Your task to perform on an android device: change the clock display to digital Image 0: 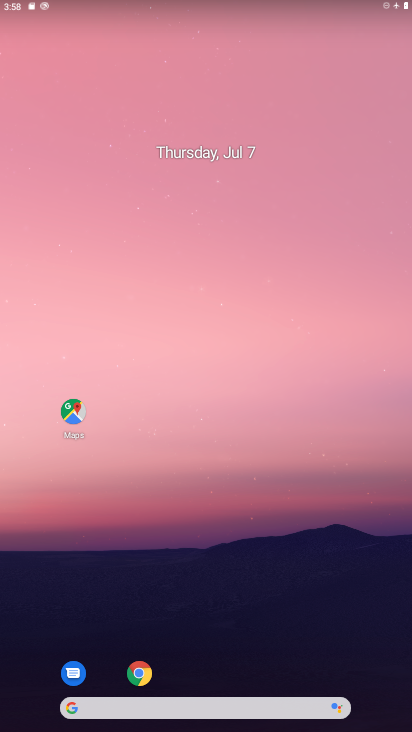
Step 0: drag from (207, 88) to (208, 0)
Your task to perform on an android device: change the clock display to digital Image 1: 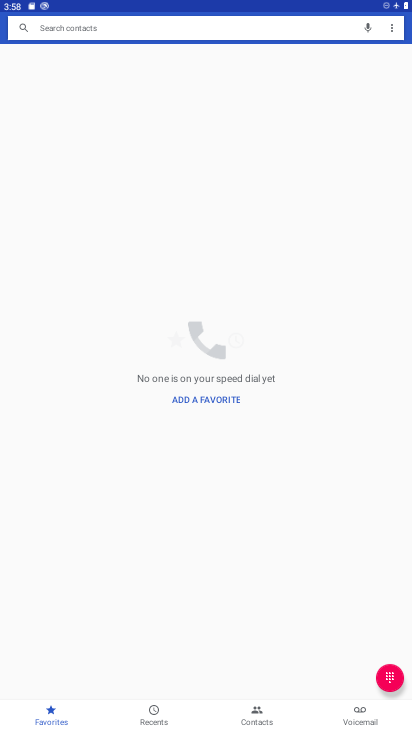
Step 1: press home button
Your task to perform on an android device: change the clock display to digital Image 2: 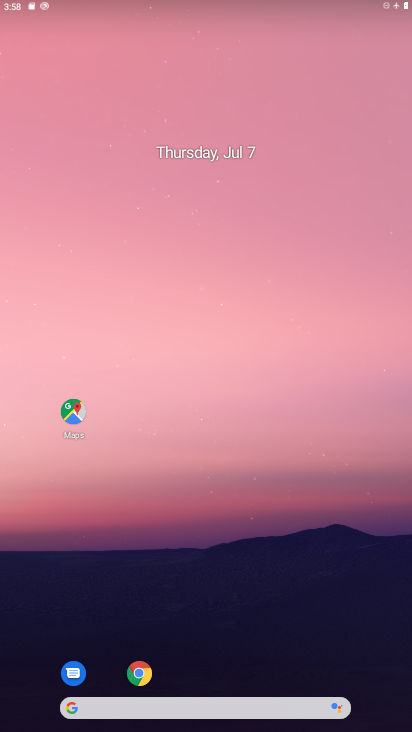
Step 2: drag from (243, 660) to (247, 13)
Your task to perform on an android device: change the clock display to digital Image 3: 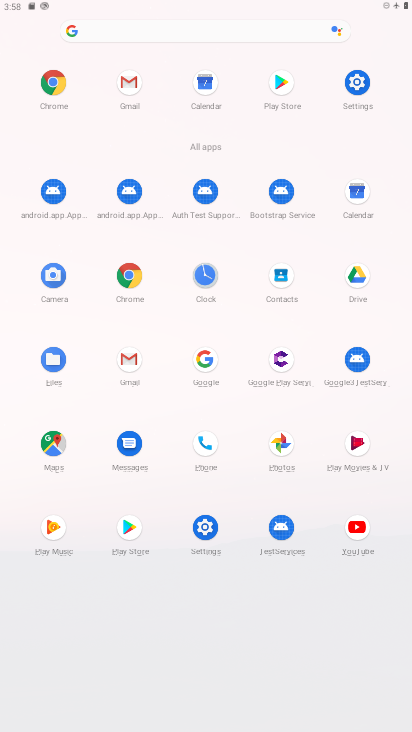
Step 3: click (203, 269)
Your task to perform on an android device: change the clock display to digital Image 4: 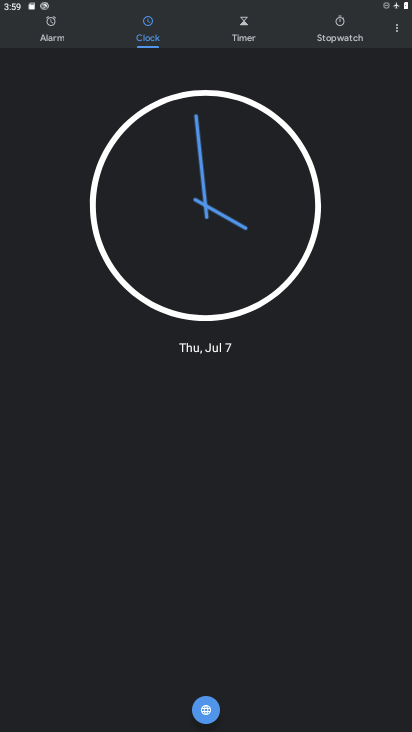
Step 4: click (393, 26)
Your task to perform on an android device: change the clock display to digital Image 5: 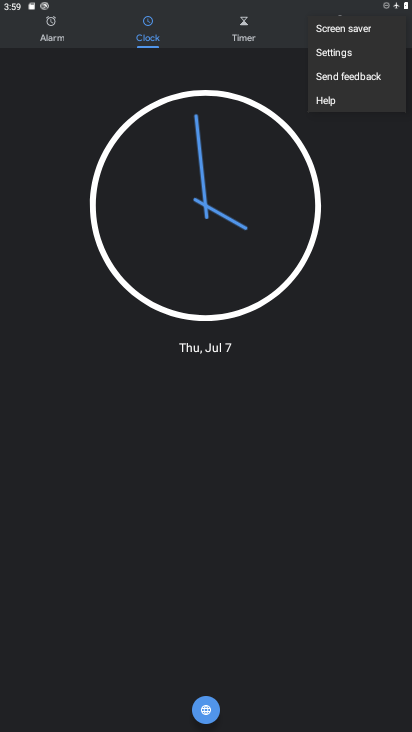
Step 5: click (351, 58)
Your task to perform on an android device: change the clock display to digital Image 6: 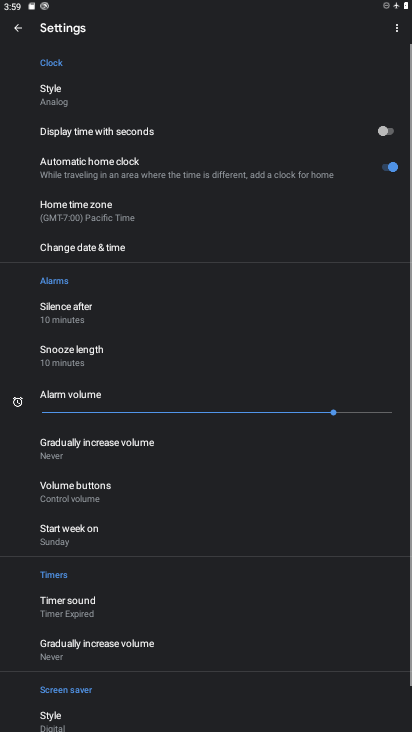
Step 6: click (83, 99)
Your task to perform on an android device: change the clock display to digital Image 7: 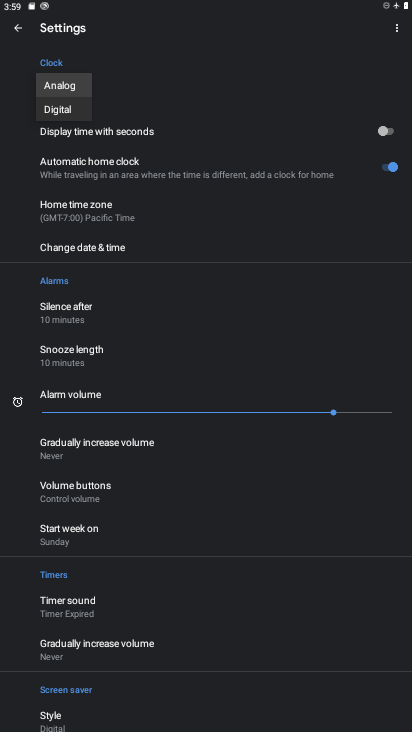
Step 7: click (72, 112)
Your task to perform on an android device: change the clock display to digital Image 8: 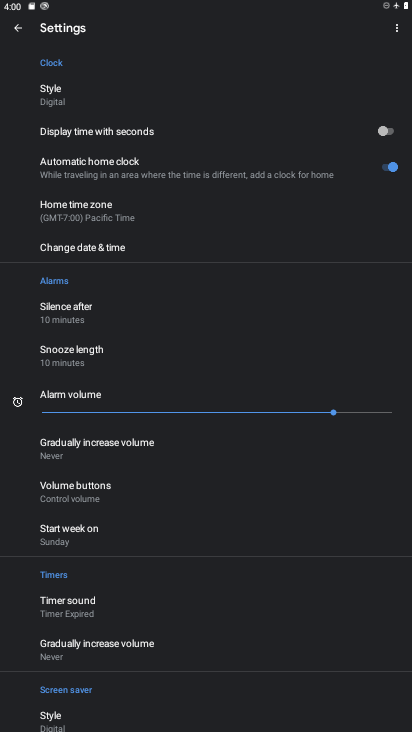
Step 8: task complete